Your task to perform on an android device: Open Amazon Image 0: 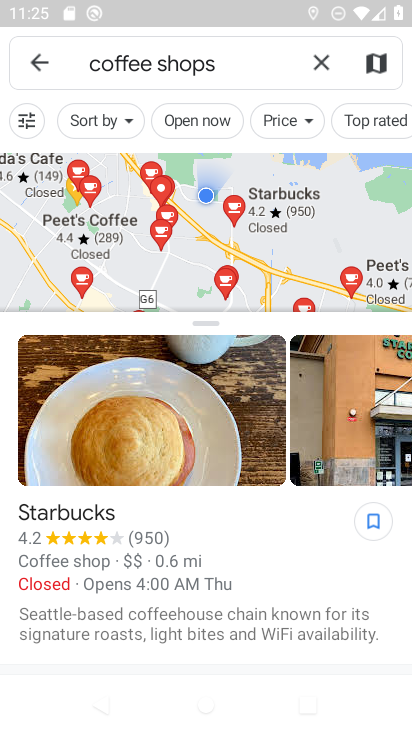
Step 0: press home button
Your task to perform on an android device: Open Amazon Image 1: 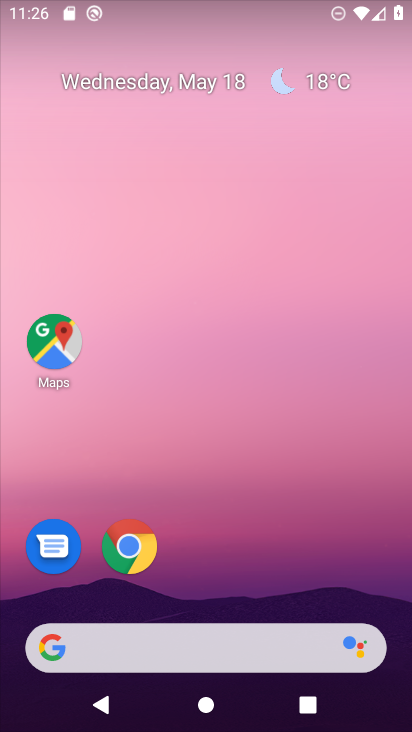
Step 1: click (132, 544)
Your task to perform on an android device: Open Amazon Image 2: 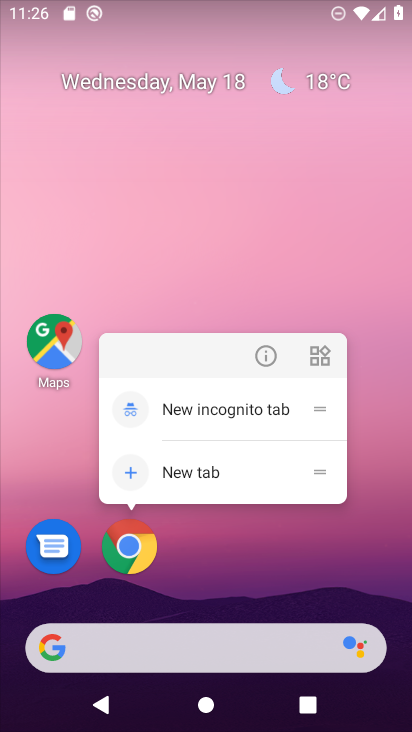
Step 2: click (131, 545)
Your task to perform on an android device: Open Amazon Image 3: 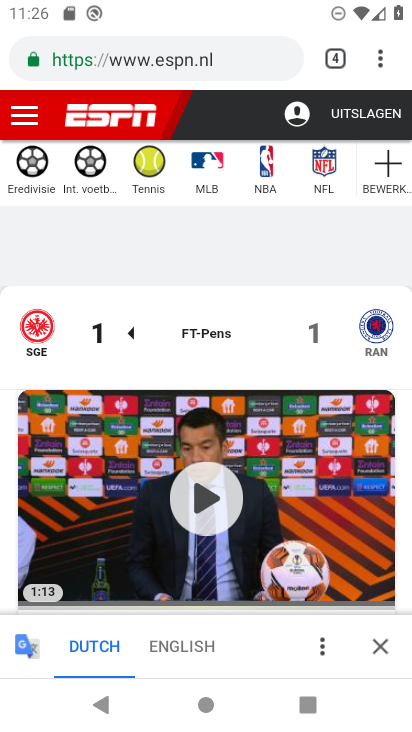
Step 3: click (379, 70)
Your task to perform on an android device: Open Amazon Image 4: 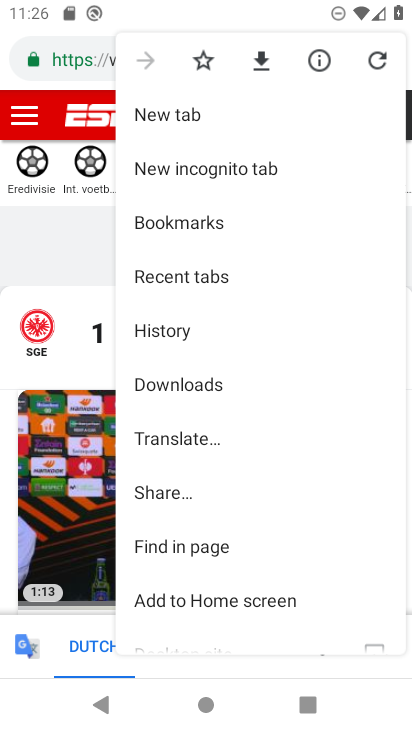
Step 4: click (156, 114)
Your task to perform on an android device: Open Amazon Image 5: 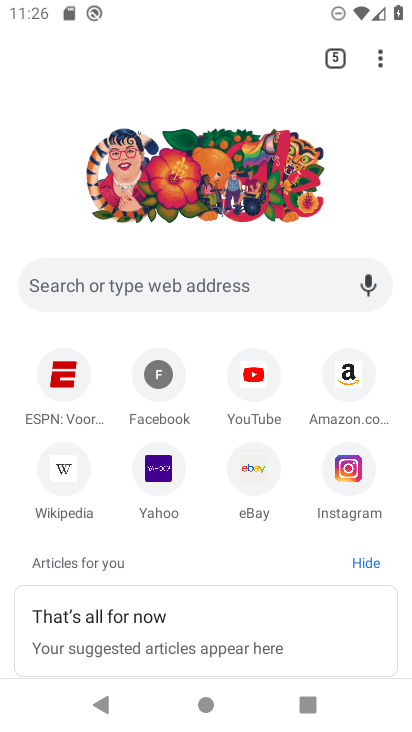
Step 5: click (238, 283)
Your task to perform on an android device: Open Amazon Image 6: 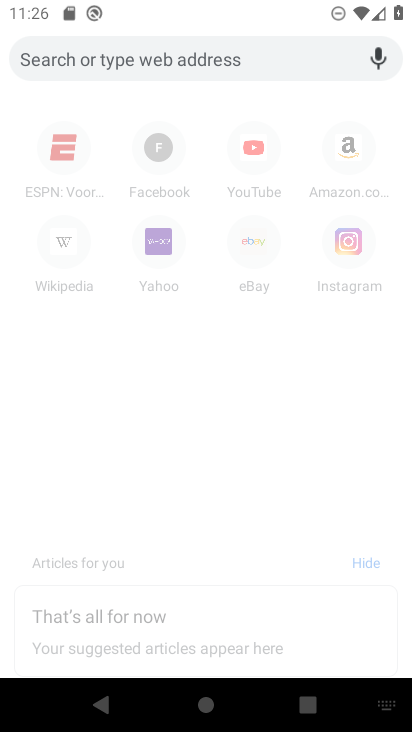
Step 6: type "Amazon"
Your task to perform on an android device: Open Amazon Image 7: 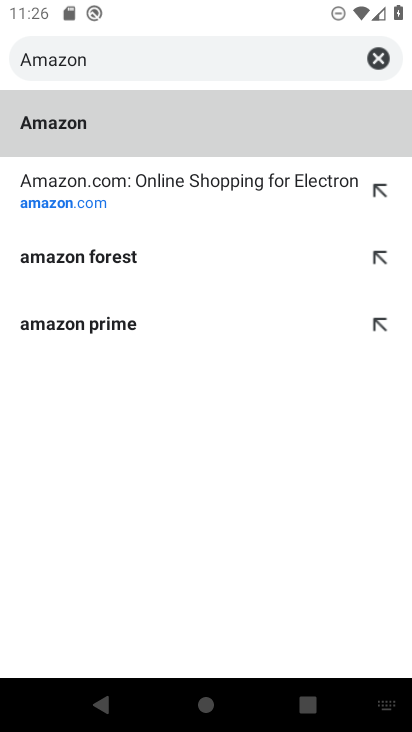
Step 7: click (90, 125)
Your task to perform on an android device: Open Amazon Image 8: 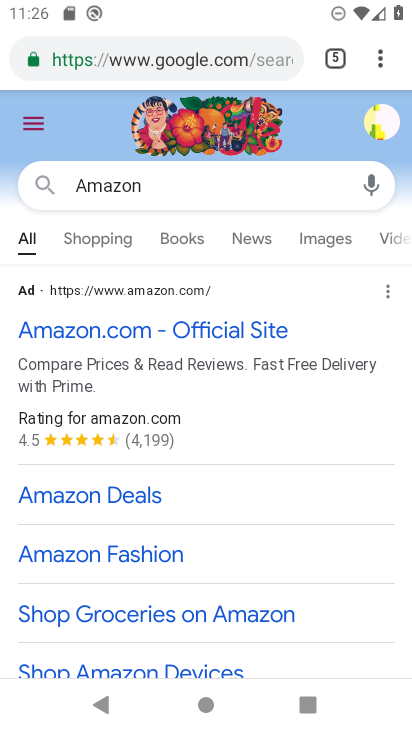
Step 8: click (136, 330)
Your task to perform on an android device: Open Amazon Image 9: 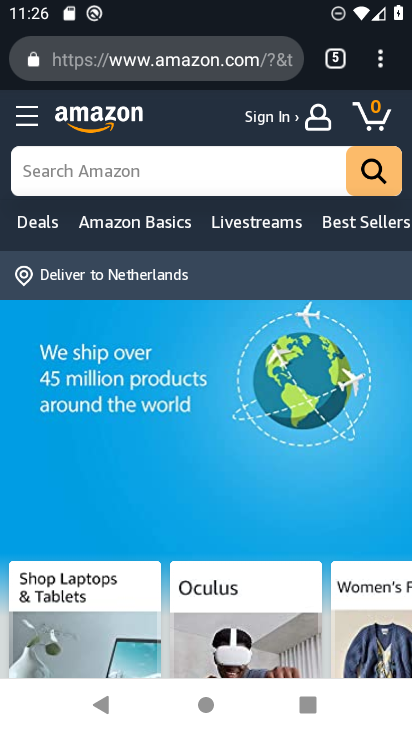
Step 9: task complete